Your task to perform on an android device: turn notification dots on Image 0: 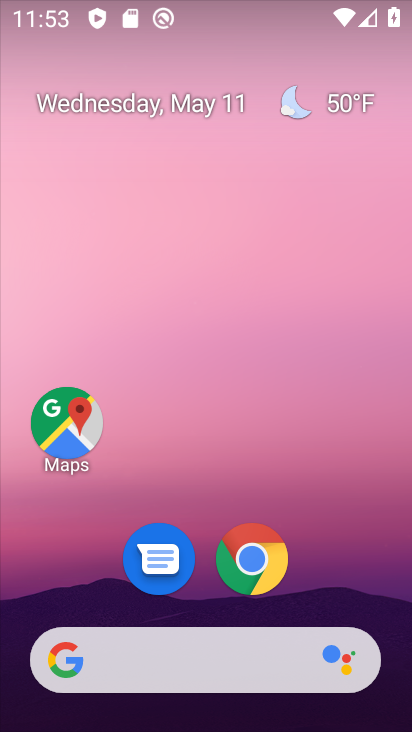
Step 0: click (210, 171)
Your task to perform on an android device: turn notification dots on Image 1: 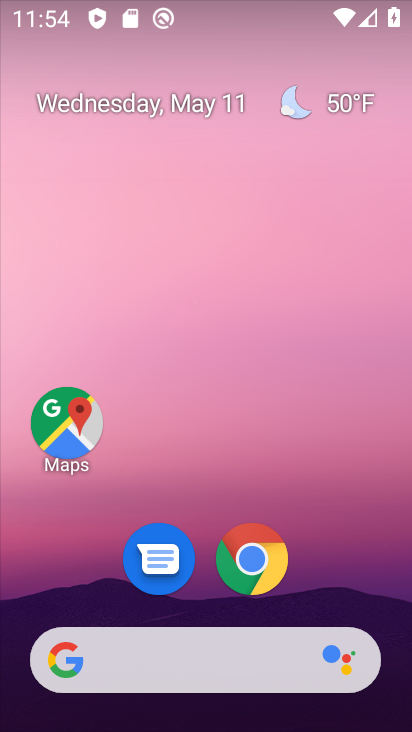
Step 1: drag from (306, 468) to (267, 121)
Your task to perform on an android device: turn notification dots on Image 2: 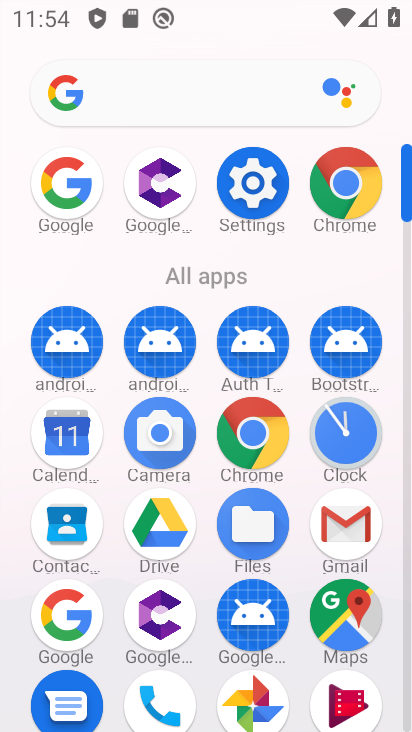
Step 2: drag from (218, 625) to (293, 293)
Your task to perform on an android device: turn notification dots on Image 3: 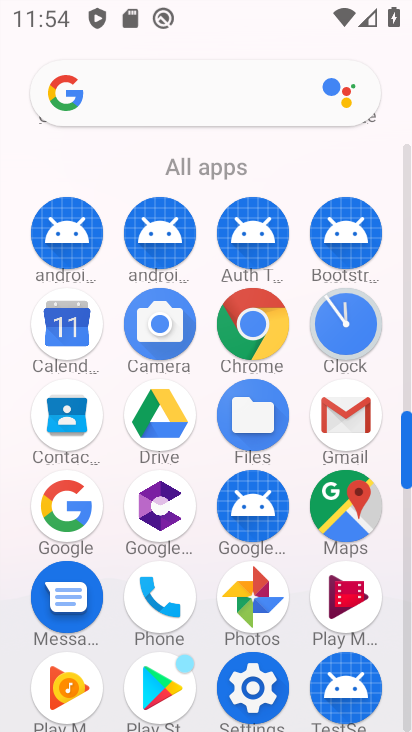
Step 3: click (272, 687)
Your task to perform on an android device: turn notification dots on Image 4: 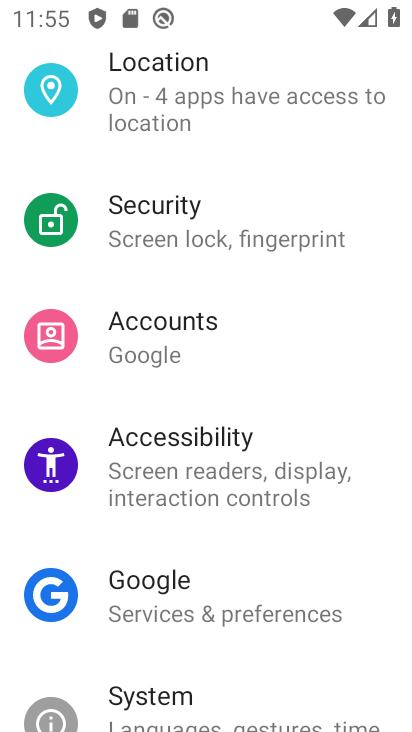
Step 4: drag from (209, 186) to (226, 542)
Your task to perform on an android device: turn notification dots on Image 5: 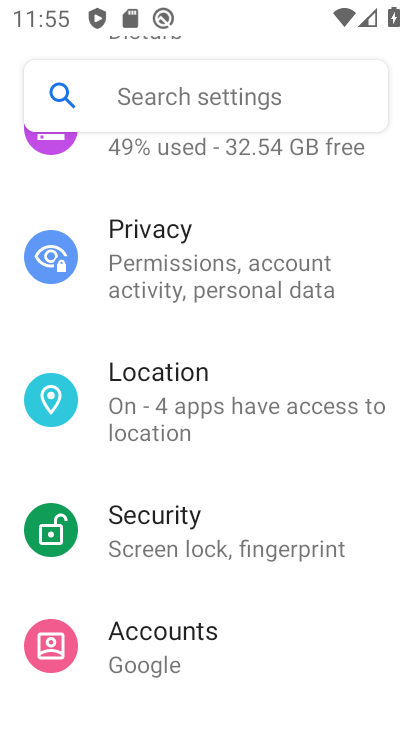
Step 5: drag from (243, 264) to (243, 604)
Your task to perform on an android device: turn notification dots on Image 6: 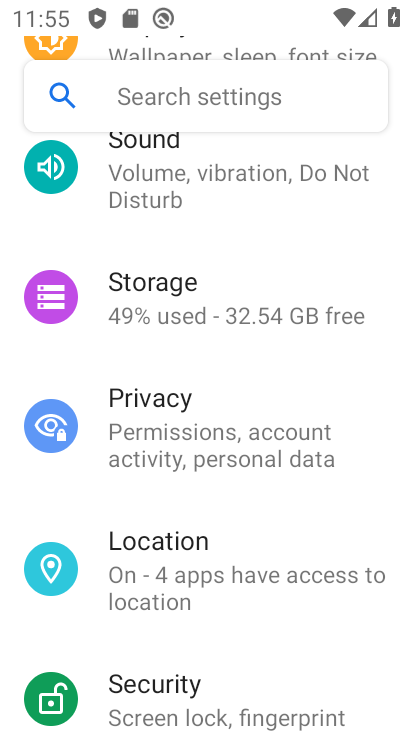
Step 6: drag from (215, 271) to (219, 616)
Your task to perform on an android device: turn notification dots on Image 7: 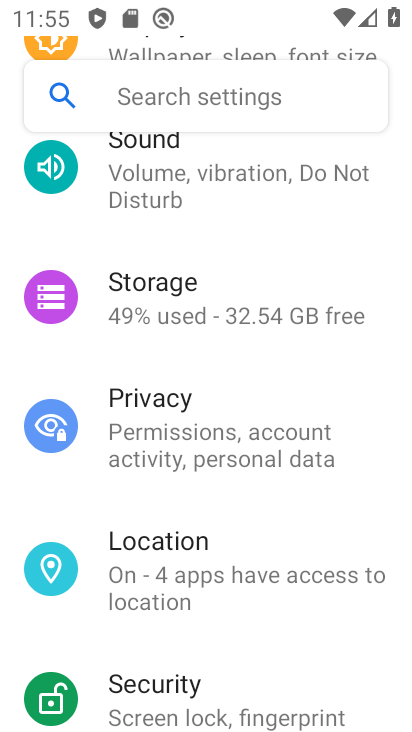
Step 7: drag from (212, 222) to (214, 556)
Your task to perform on an android device: turn notification dots on Image 8: 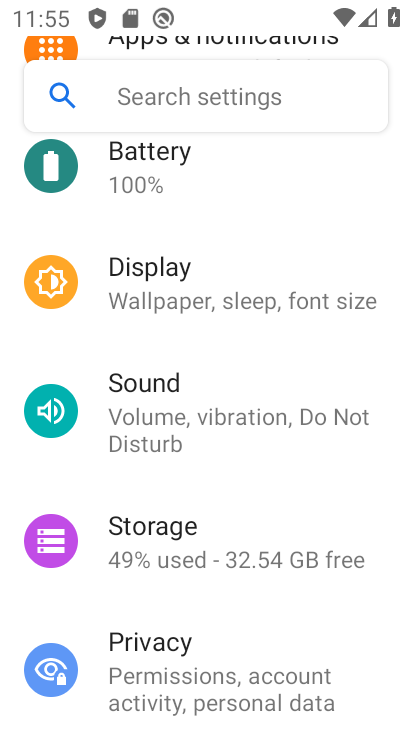
Step 8: drag from (203, 301) to (207, 645)
Your task to perform on an android device: turn notification dots on Image 9: 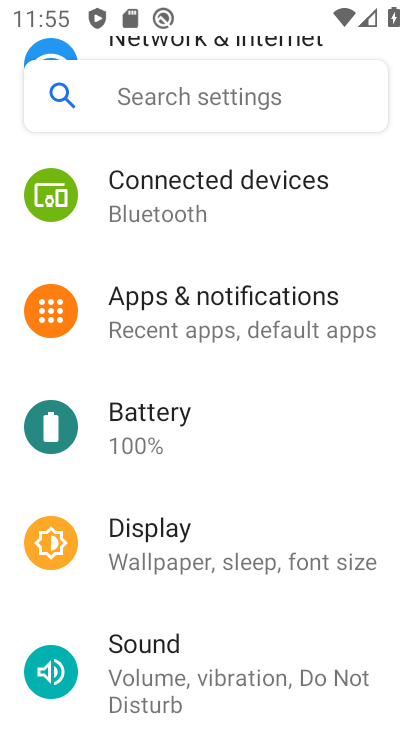
Step 9: click (203, 281)
Your task to perform on an android device: turn notification dots on Image 10: 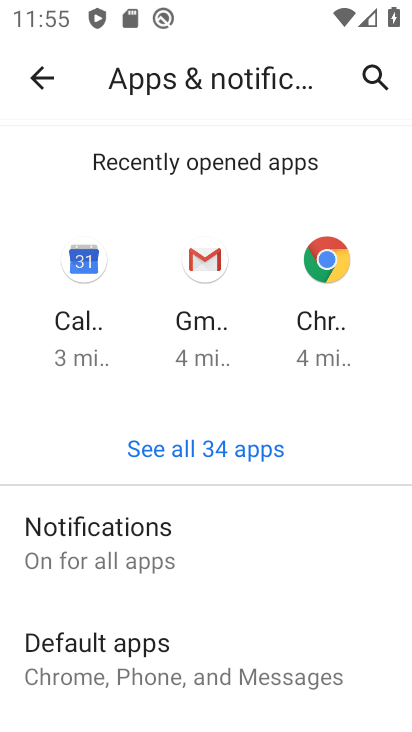
Step 10: drag from (242, 602) to (244, 210)
Your task to perform on an android device: turn notification dots on Image 11: 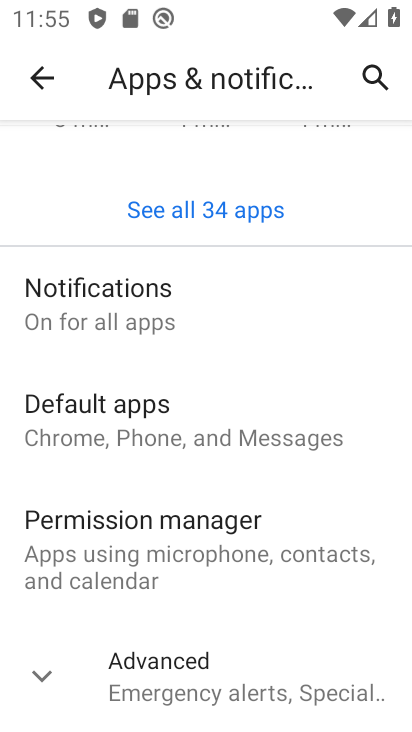
Step 11: drag from (208, 628) to (283, 193)
Your task to perform on an android device: turn notification dots on Image 12: 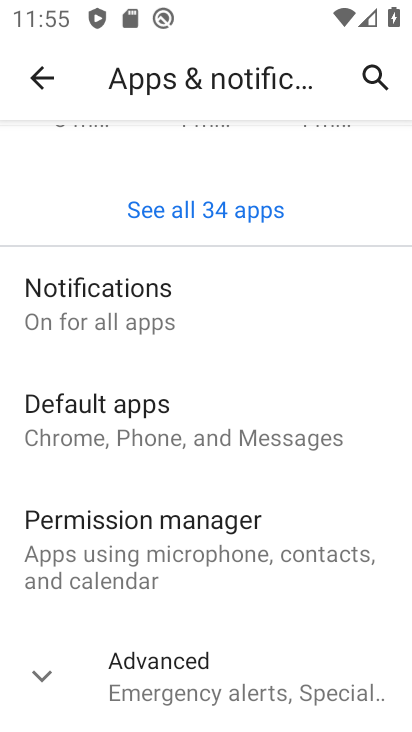
Step 12: click (130, 316)
Your task to perform on an android device: turn notification dots on Image 13: 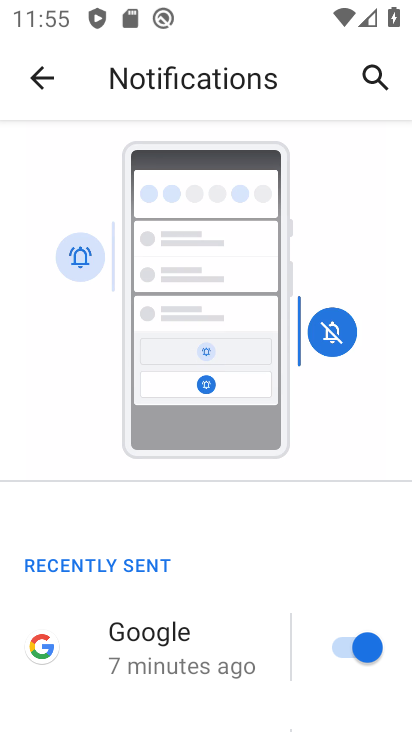
Step 13: drag from (211, 249) to (258, 10)
Your task to perform on an android device: turn notification dots on Image 14: 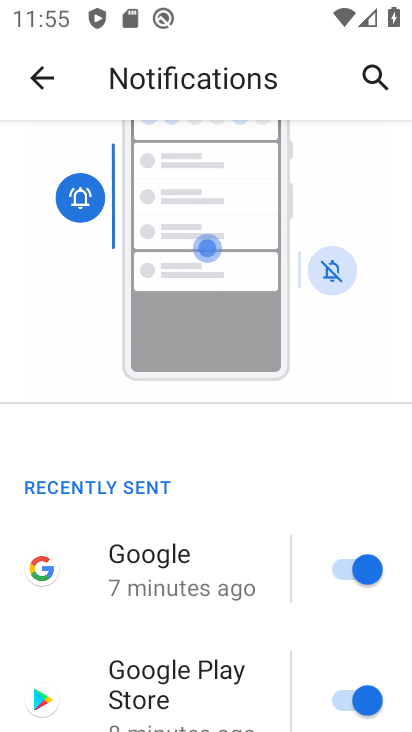
Step 14: drag from (196, 661) to (242, 57)
Your task to perform on an android device: turn notification dots on Image 15: 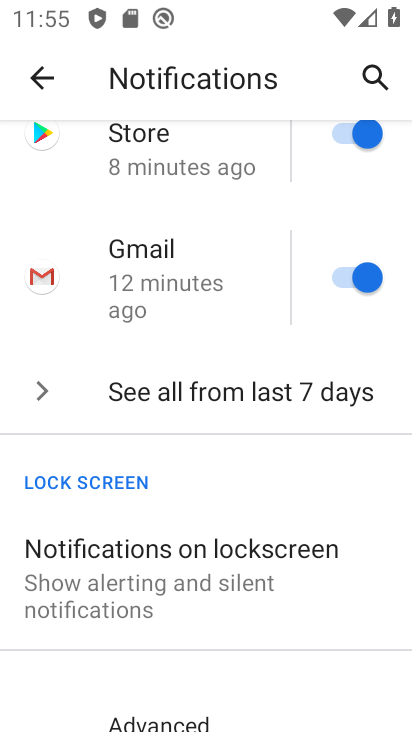
Step 15: drag from (208, 641) to (208, 436)
Your task to perform on an android device: turn notification dots on Image 16: 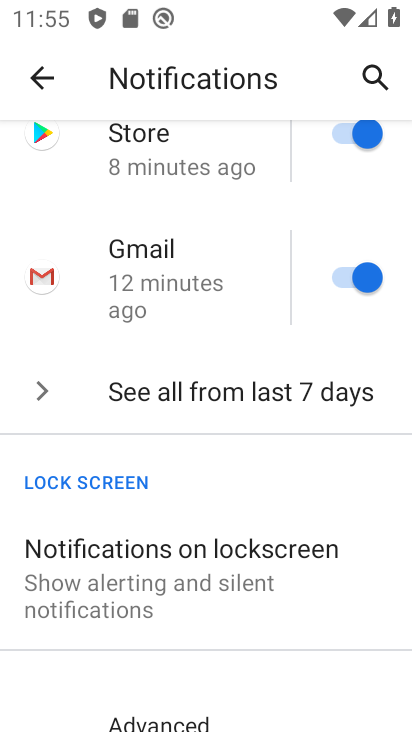
Step 16: drag from (245, 636) to (199, 275)
Your task to perform on an android device: turn notification dots on Image 17: 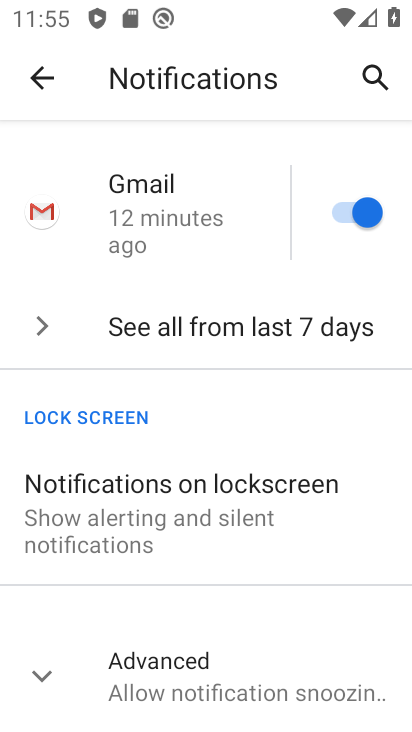
Step 17: drag from (210, 621) to (207, 113)
Your task to perform on an android device: turn notification dots on Image 18: 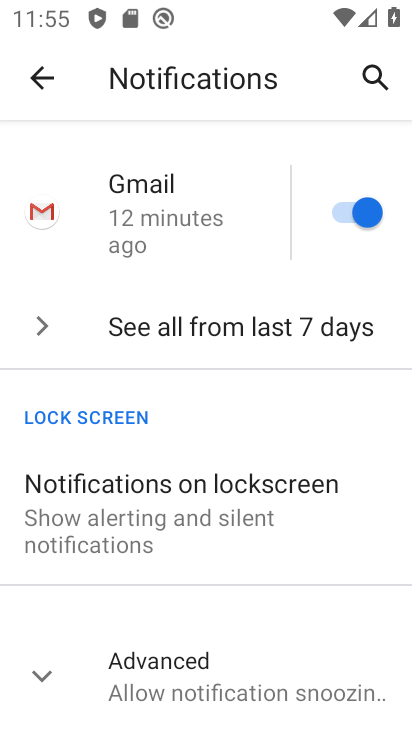
Step 18: click (153, 684)
Your task to perform on an android device: turn notification dots on Image 19: 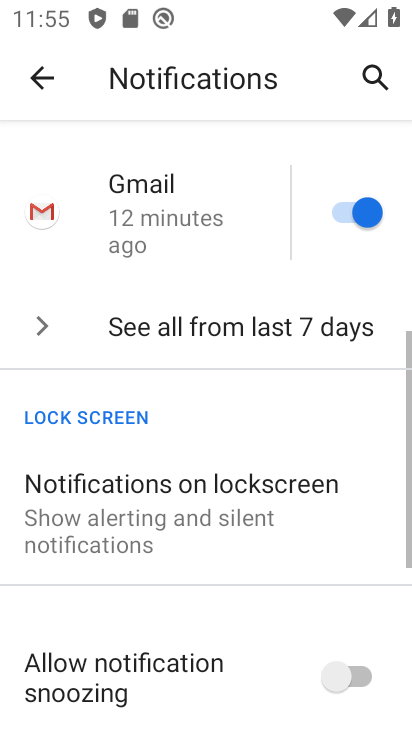
Step 19: task complete